Your task to perform on an android device: When is my next meeting? Image 0: 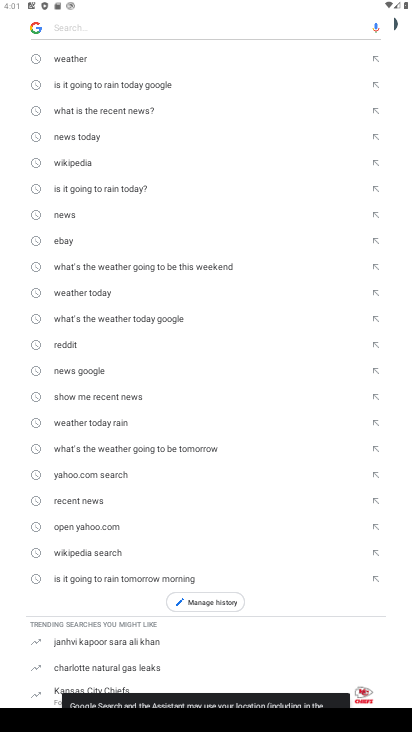
Step 0: press home button
Your task to perform on an android device: When is my next meeting? Image 1: 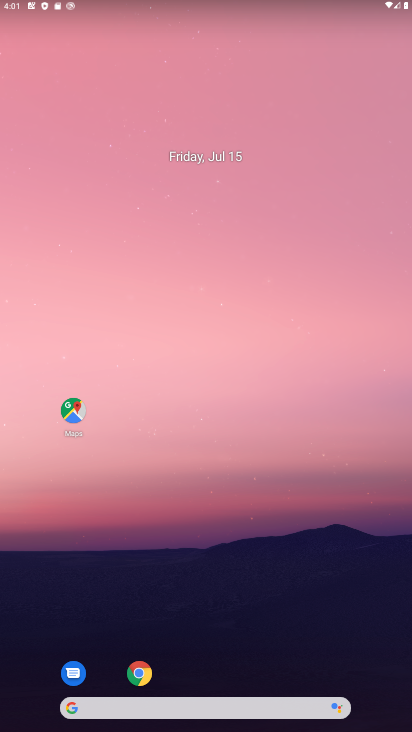
Step 1: drag from (209, 670) to (235, 289)
Your task to perform on an android device: When is my next meeting? Image 2: 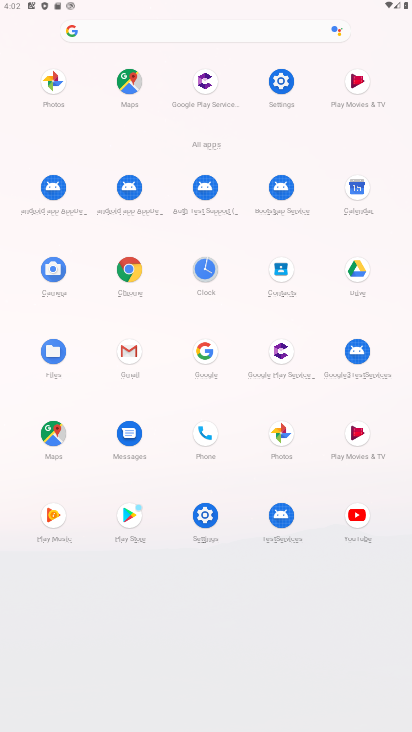
Step 2: click (348, 194)
Your task to perform on an android device: When is my next meeting? Image 3: 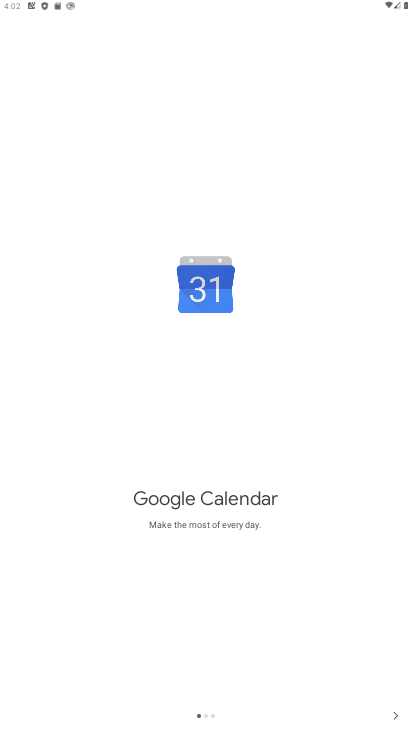
Step 3: click (404, 722)
Your task to perform on an android device: When is my next meeting? Image 4: 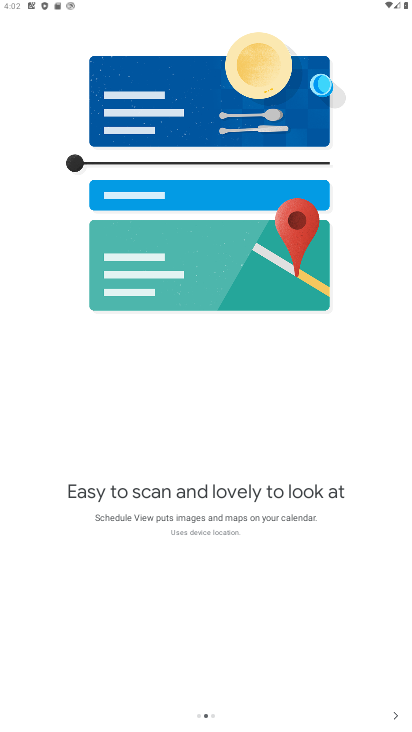
Step 4: click (393, 712)
Your task to perform on an android device: When is my next meeting? Image 5: 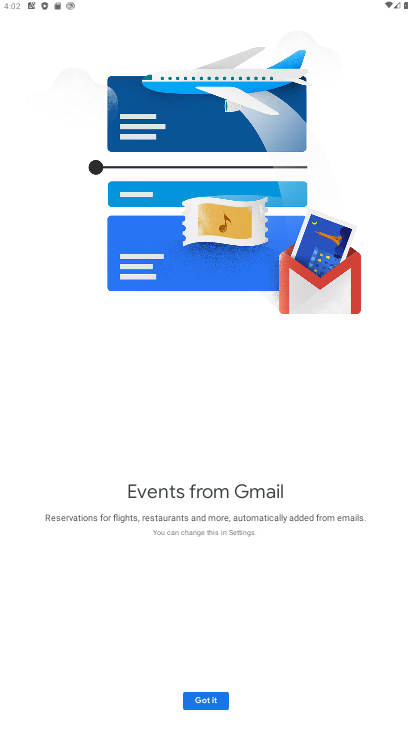
Step 5: click (228, 700)
Your task to perform on an android device: When is my next meeting? Image 6: 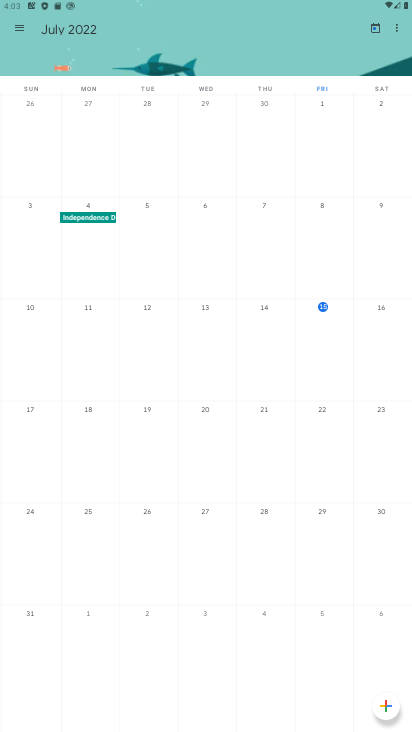
Step 6: click (374, 307)
Your task to perform on an android device: When is my next meeting? Image 7: 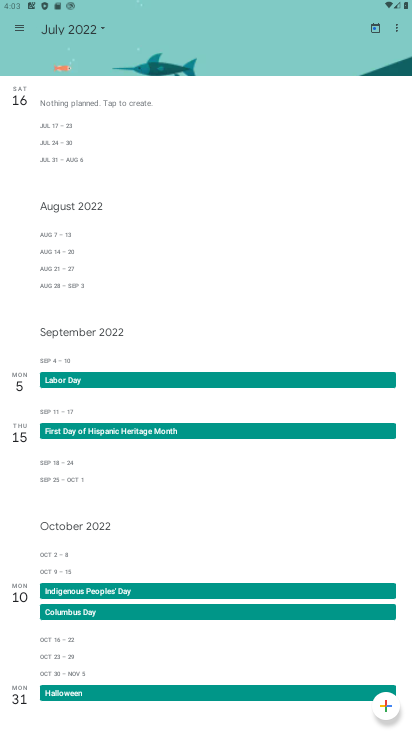
Step 7: task complete